Your task to perform on an android device: Go to notification settings Image 0: 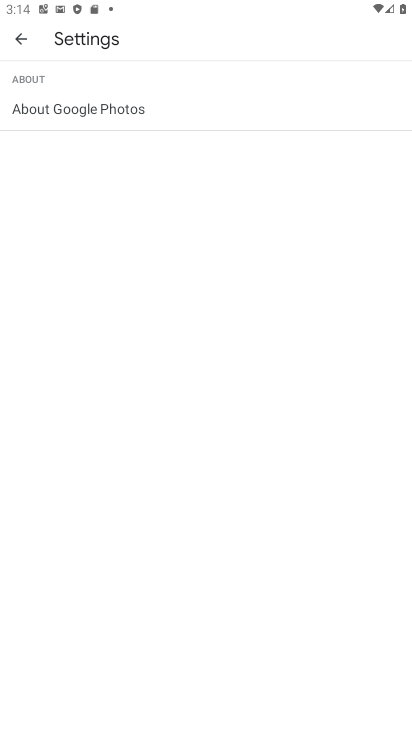
Step 0: press home button
Your task to perform on an android device: Go to notification settings Image 1: 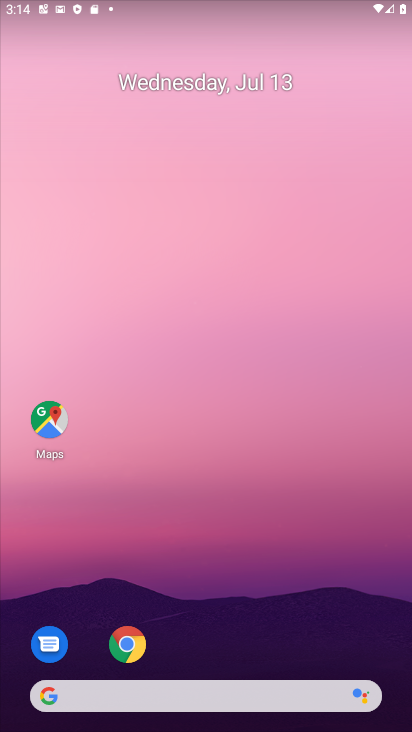
Step 1: click (45, 424)
Your task to perform on an android device: Go to notification settings Image 2: 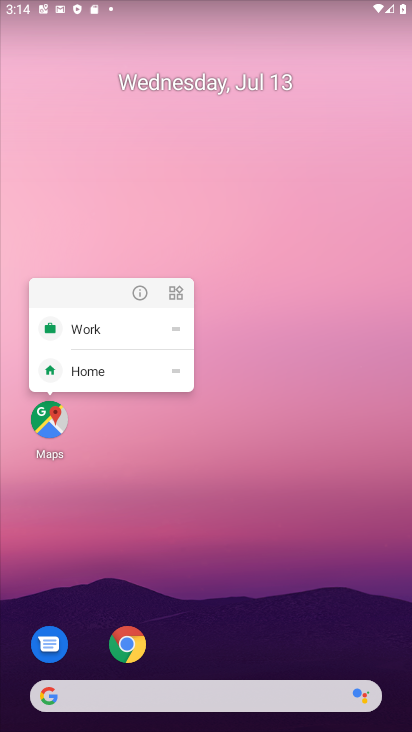
Step 2: click (247, 497)
Your task to perform on an android device: Go to notification settings Image 3: 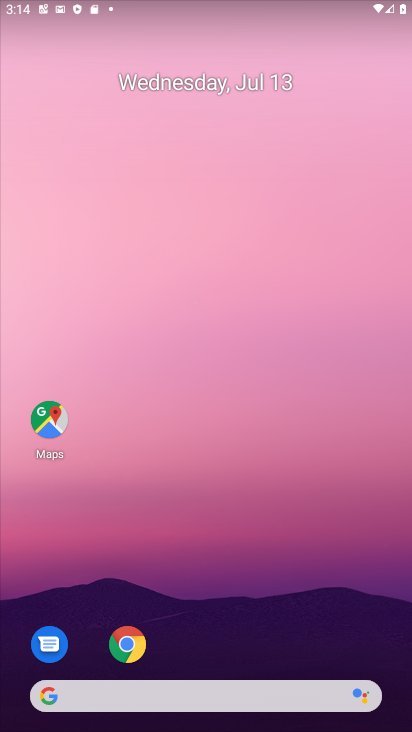
Step 3: drag from (45, 720) to (308, 84)
Your task to perform on an android device: Go to notification settings Image 4: 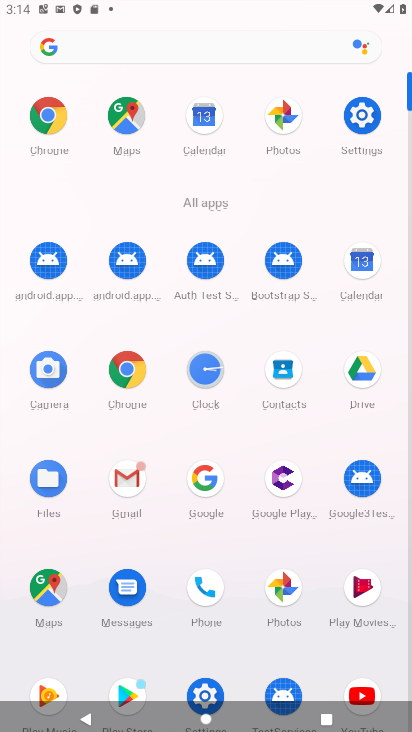
Step 4: click (193, 684)
Your task to perform on an android device: Go to notification settings Image 5: 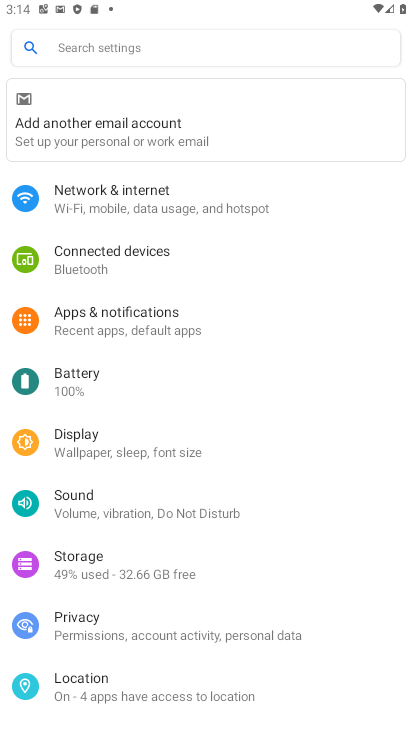
Step 5: click (119, 321)
Your task to perform on an android device: Go to notification settings Image 6: 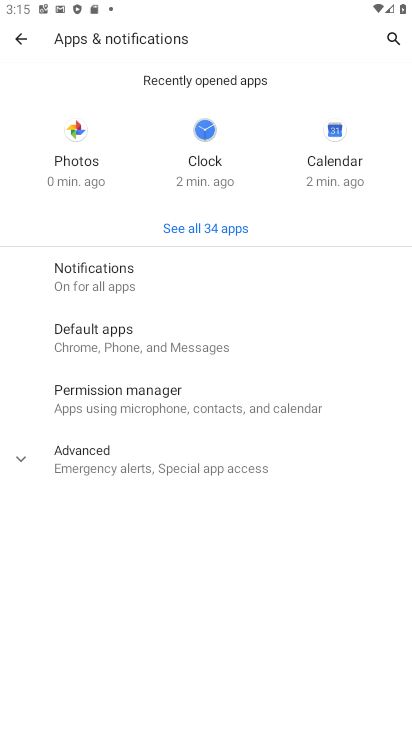
Step 6: click (90, 280)
Your task to perform on an android device: Go to notification settings Image 7: 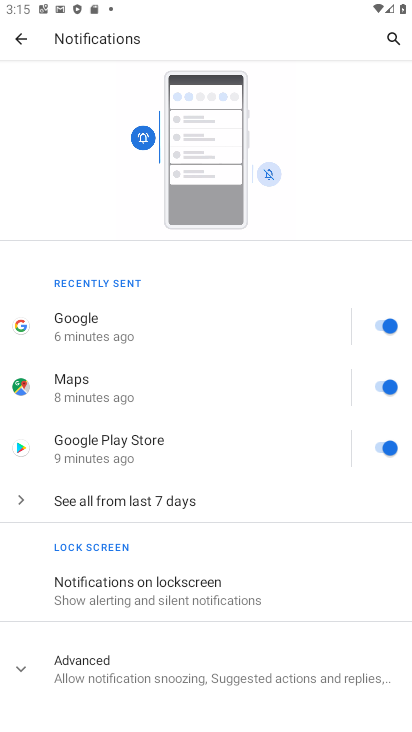
Step 7: task complete